Your task to perform on an android device: Go to network settings Image 0: 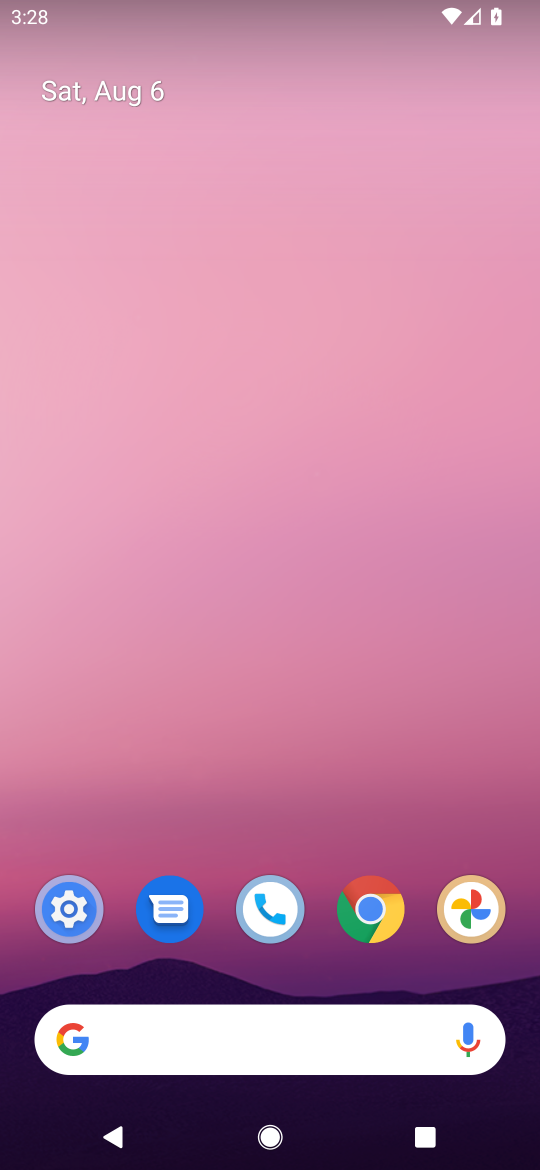
Step 0: drag from (255, 853) to (377, 48)
Your task to perform on an android device: Go to network settings Image 1: 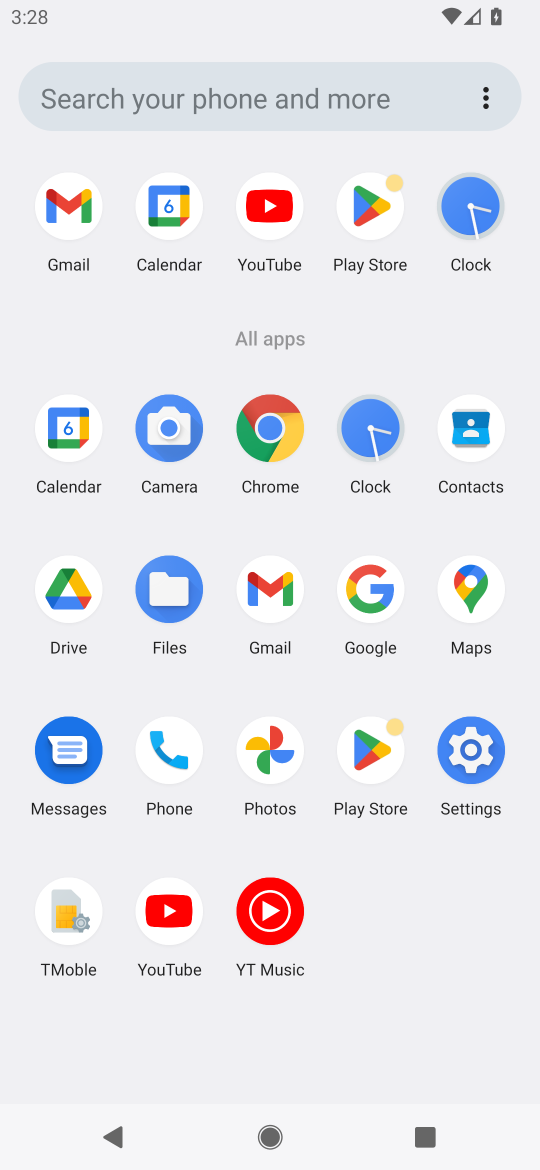
Step 1: click (486, 766)
Your task to perform on an android device: Go to network settings Image 2: 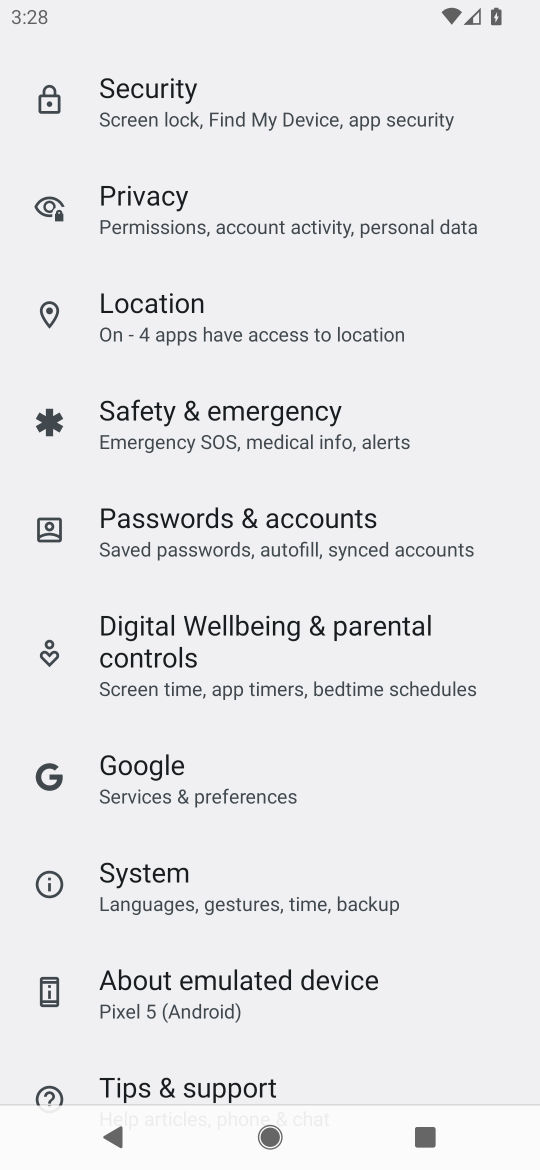
Step 2: drag from (330, 311) to (276, 1051)
Your task to perform on an android device: Go to network settings Image 3: 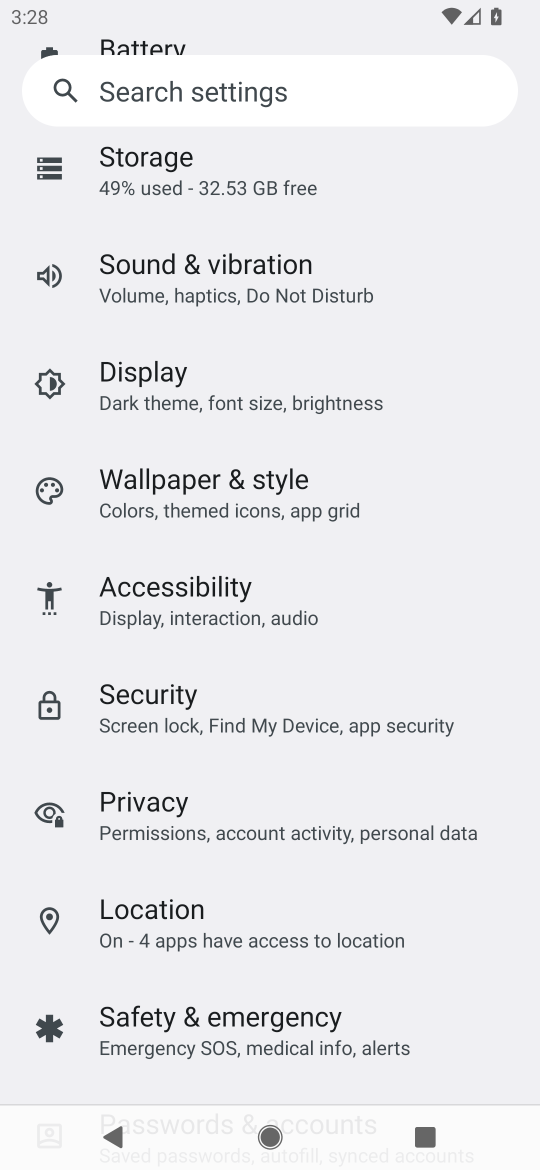
Step 3: drag from (326, 133) to (158, 922)
Your task to perform on an android device: Go to network settings Image 4: 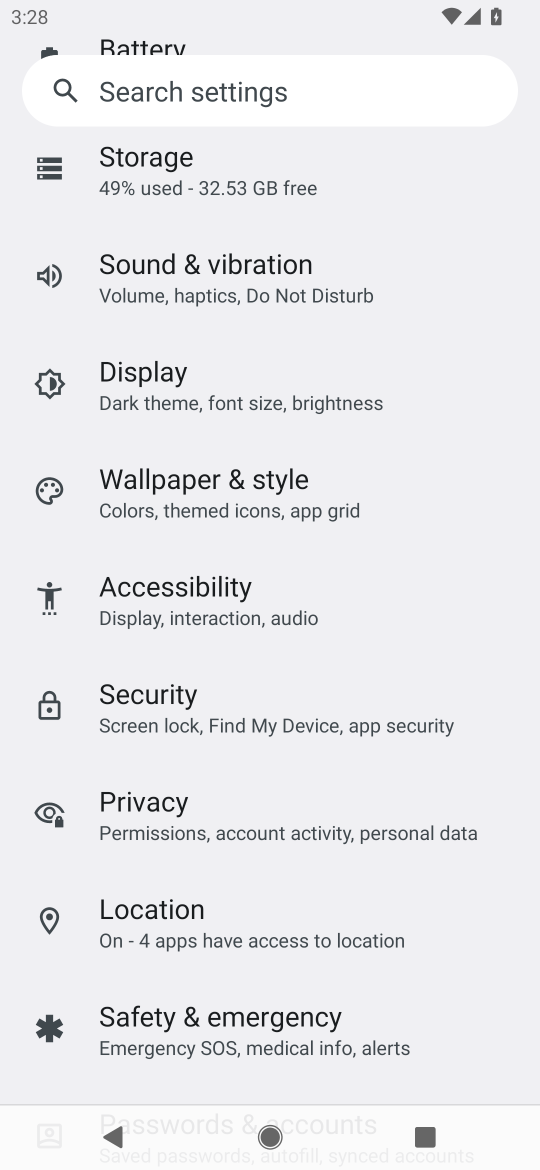
Step 4: drag from (314, 316) to (116, 1008)
Your task to perform on an android device: Go to network settings Image 5: 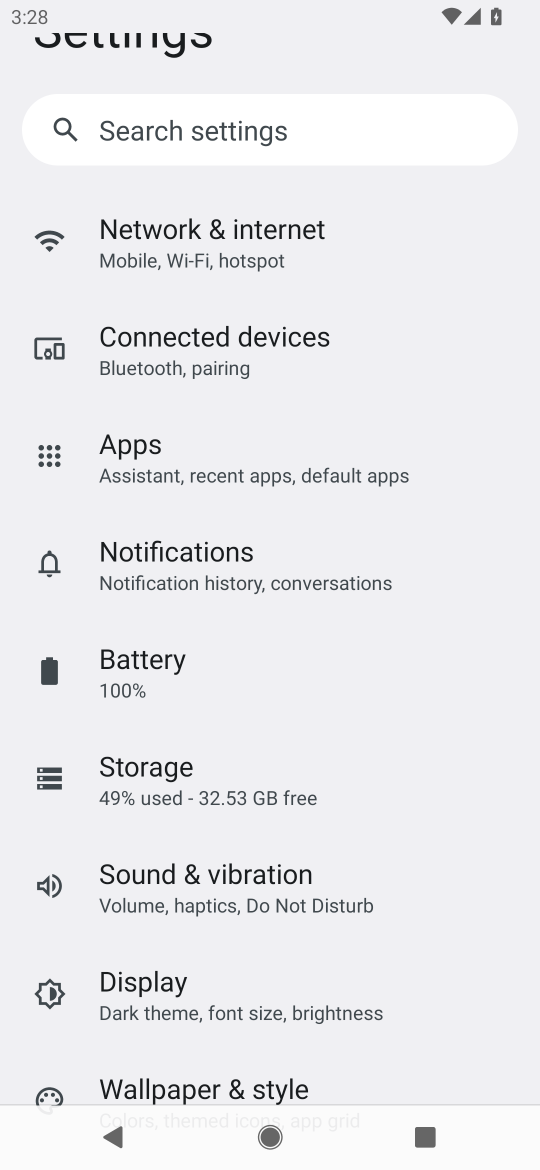
Step 5: click (238, 230)
Your task to perform on an android device: Go to network settings Image 6: 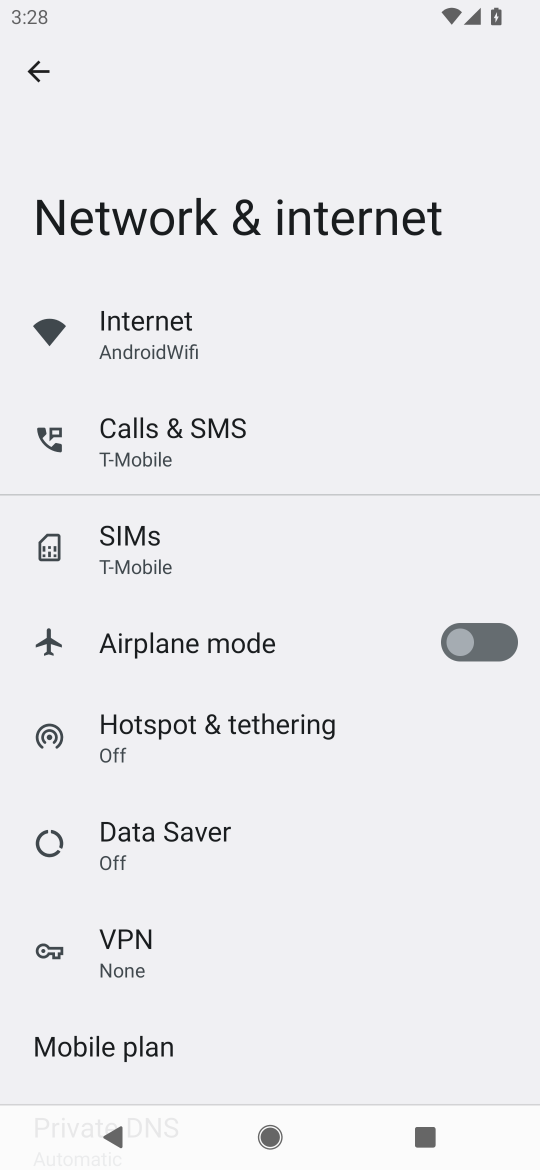
Step 6: task complete